Your task to perform on an android device: Search for pizza restaurants on Maps Image 0: 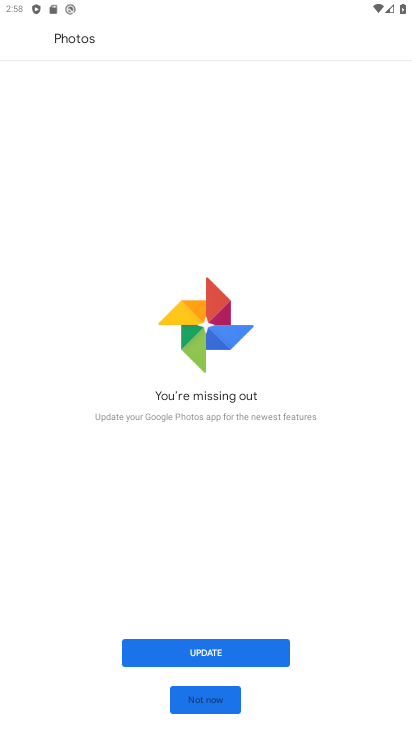
Step 0: press back button
Your task to perform on an android device: Search for pizza restaurants on Maps Image 1: 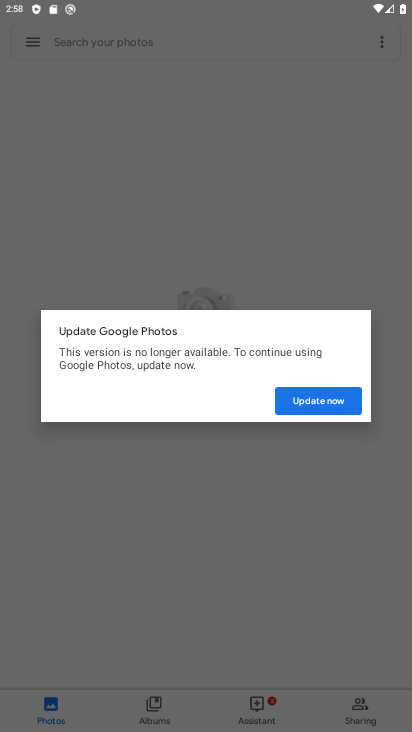
Step 1: press home button
Your task to perform on an android device: Search for pizza restaurants on Maps Image 2: 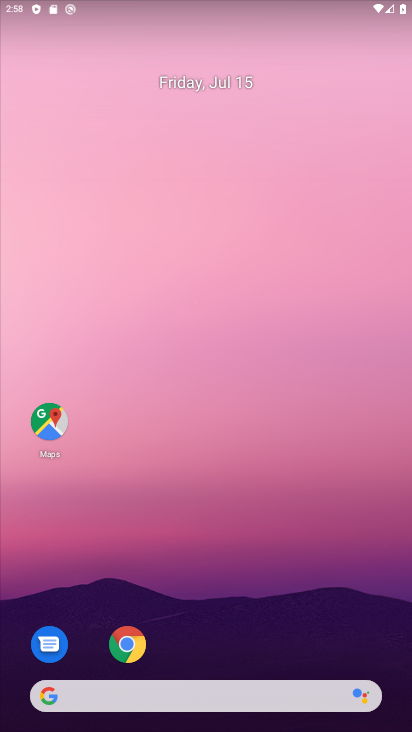
Step 2: click (48, 421)
Your task to perform on an android device: Search for pizza restaurants on Maps Image 3: 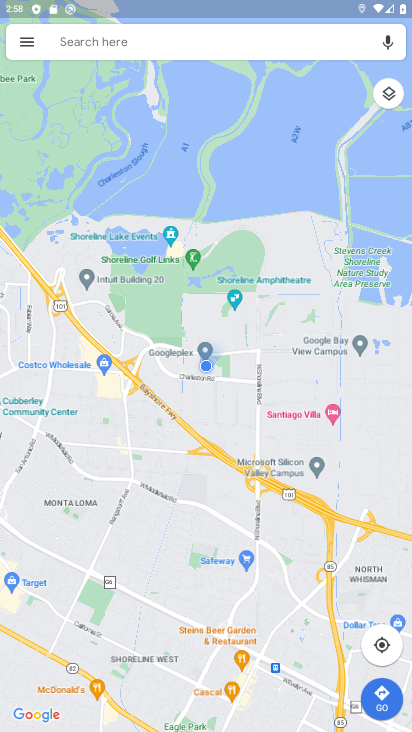
Step 3: click (144, 42)
Your task to perform on an android device: Search for pizza restaurants on Maps Image 4: 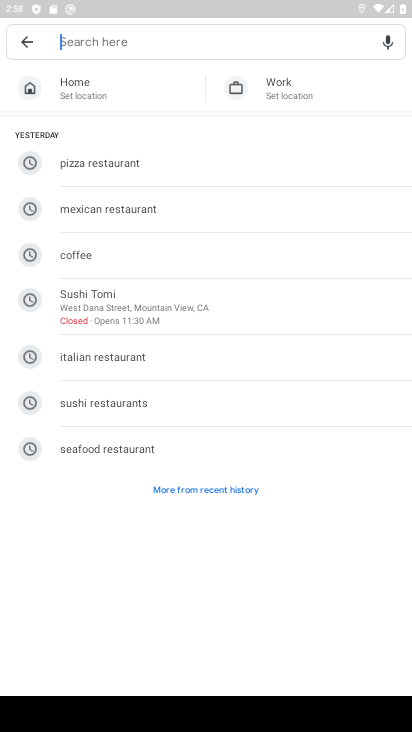
Step 4: click (95, 162)
Your task to perform on an android device: Search for pizza restaurants on Maps Image 5: 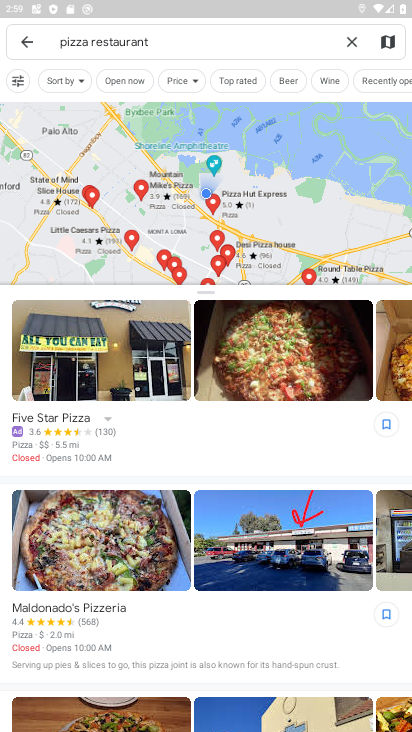
Step 5: task complete